Your task to perform on an android device: Open settings on Google Maps Image 0: 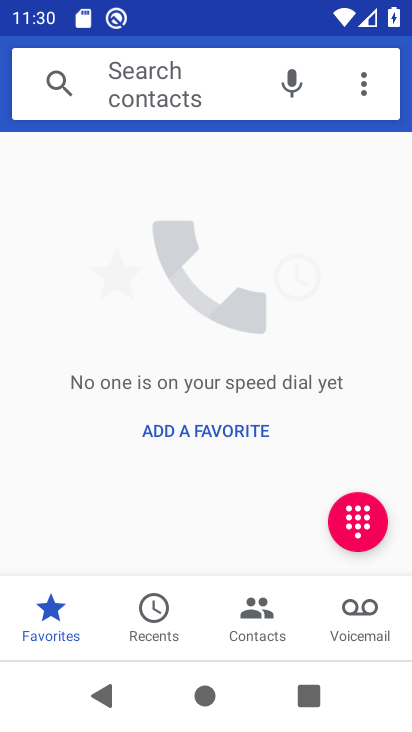
Step 0: press home button
Your task to perform on an android device: Open settings on Google Maps Image 1: 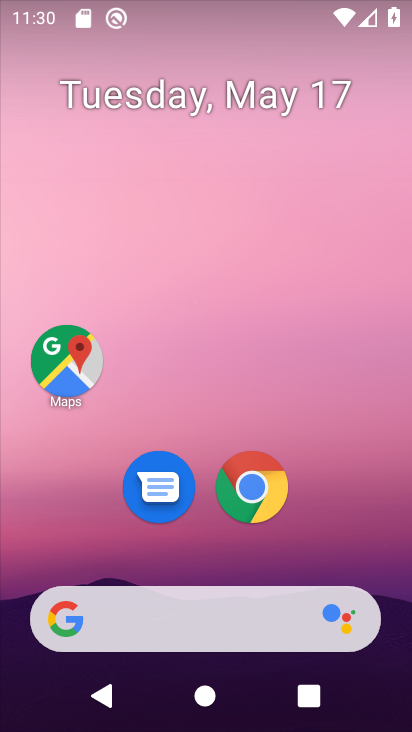
Step 1: click (44, 353)
Your task to perform on an android device: Open settings on Google Maps Image 2: 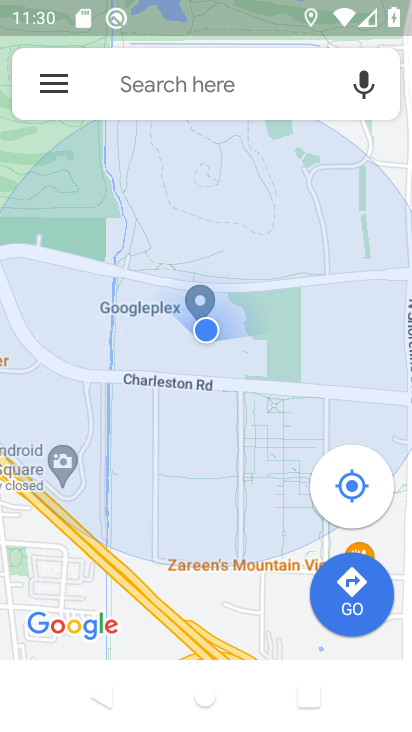
Step 2: click (49, 85)
Your task to perform on an android device: Open settings on Google Maps Image 3: 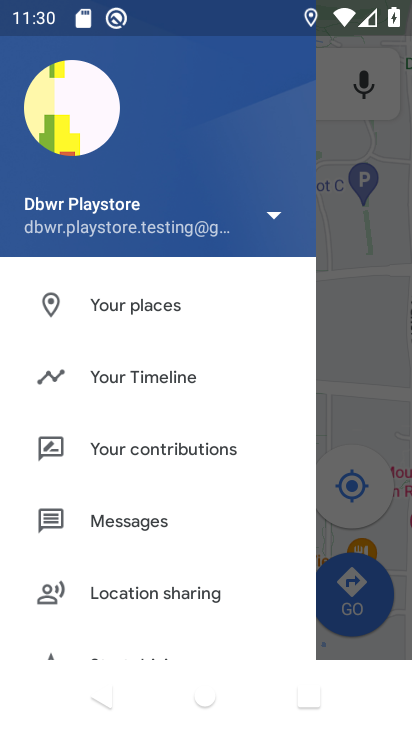
Step 3: drag from (205, 627) to (220, 258)
Your task to perform on an android device: Open settings on Google Maps Image 4: 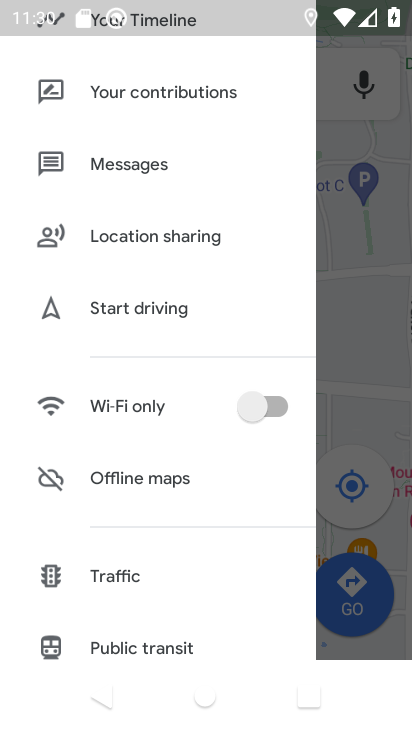
Step 4: drag from (200, 612) to (203, 244)
Your task to perform on an android device: Open settings on Google Maps Image 5: 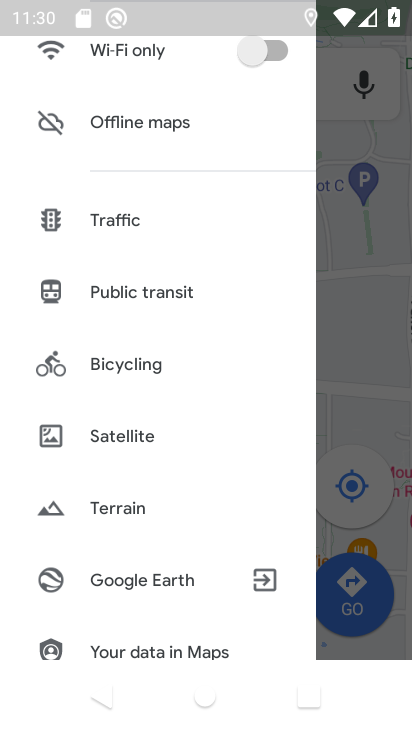
Step 5: drag from (190, 621) to (183, 159)
Your task to perform on an android device: Open settings on Google Maps Image 6: 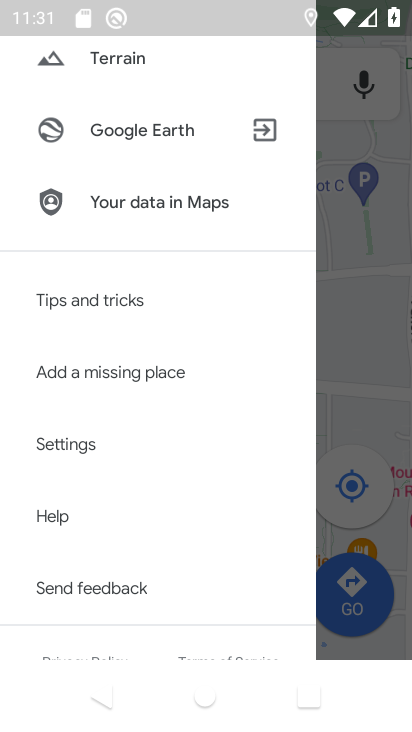
Step 6: click (183, 447)
Your task to perform on an android device: Open settings on Google Maps Image 7: 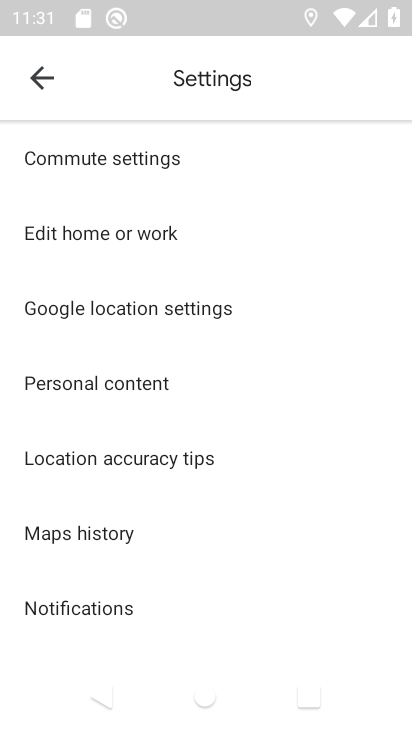
Step 7: task complete